Your task to perform on an android device: What is the news today? Image 0: 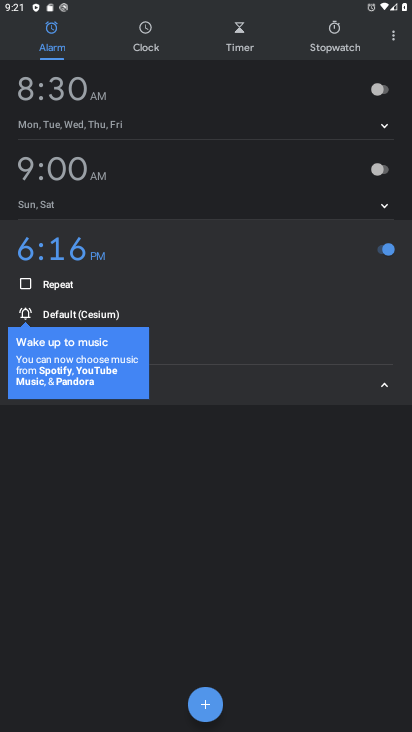
Step 0: press home button
Your task to perform on an android device: What is the news today? Image 1: 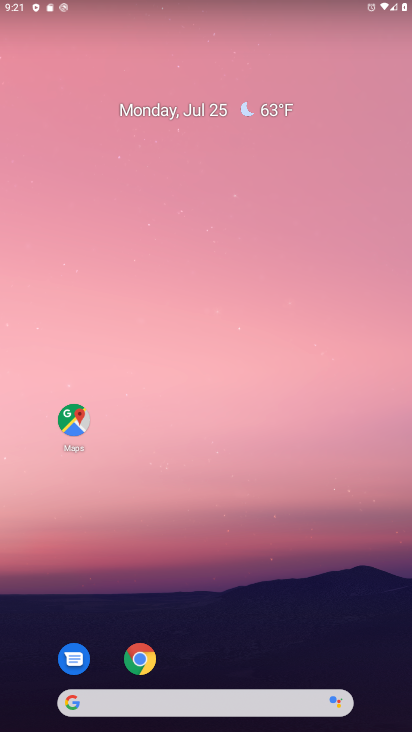
Step 1: task complete